Your task to perform on an android device: open app "Google Play Games" Image 0: 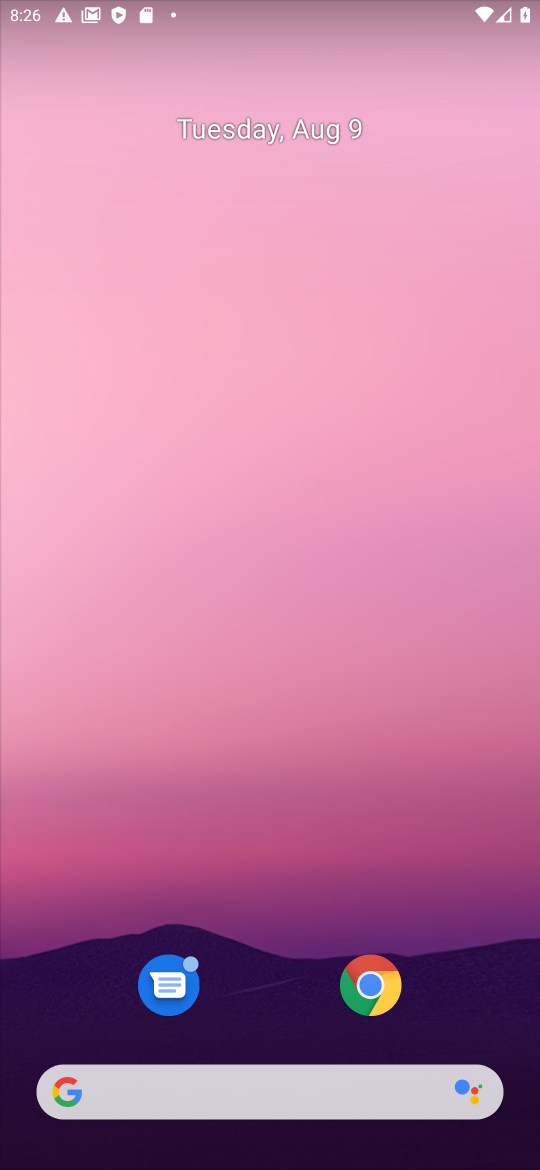
Step 0: drag from (233, 996) to (252, 405)
Your task to perform on an android device: open app "Google Play Games" Image 1: 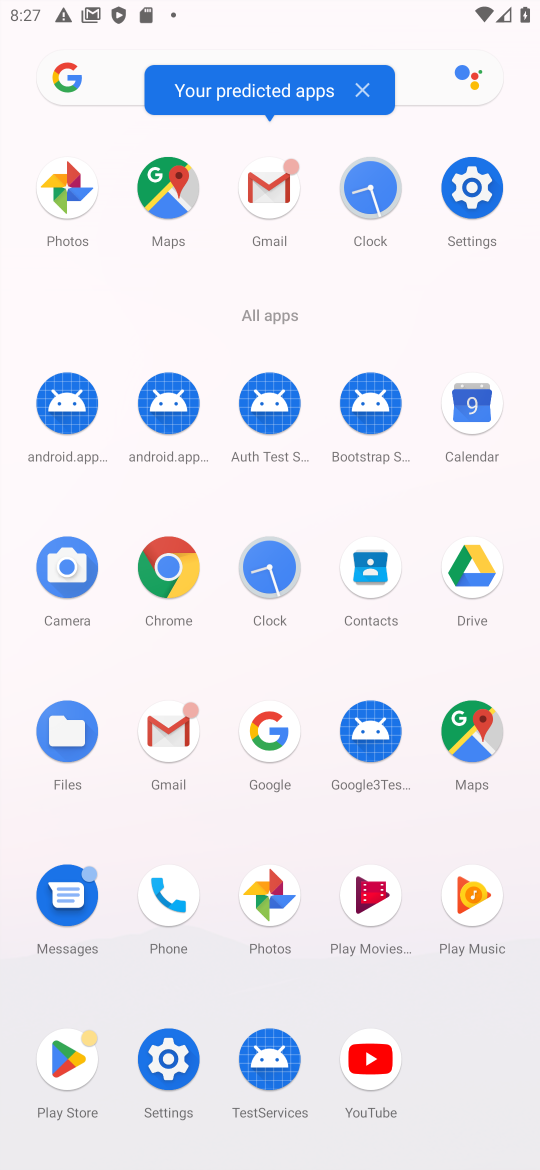
Step 1: click (54, 1098)
Your task to perform on an android device: open app "Google Play Games" Image 2: 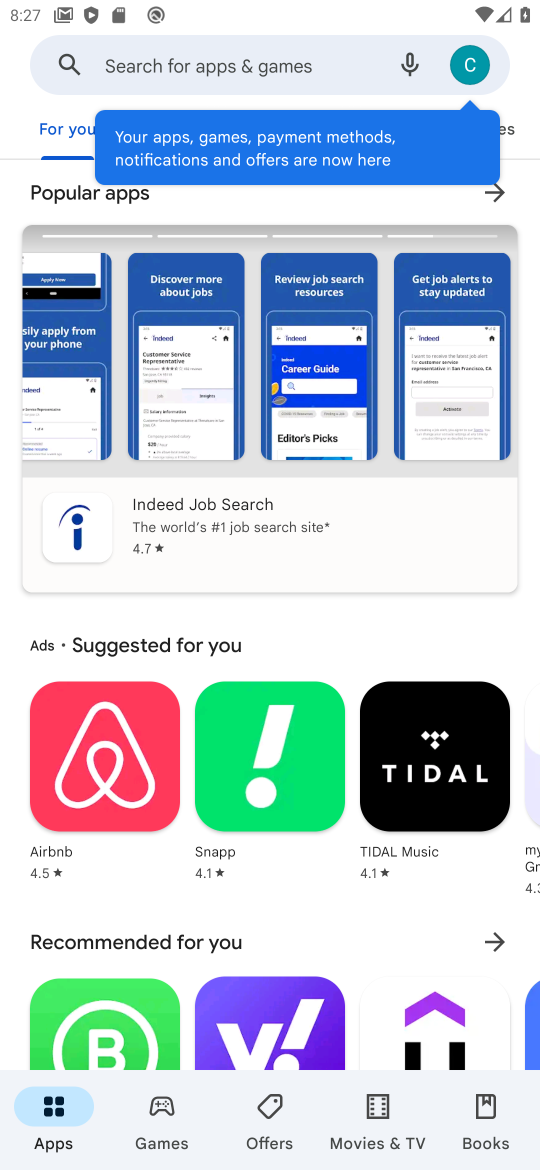
Step 2: click (205, 61)
Your task to perform on an android device: open app "Google Play Games" Image 3: 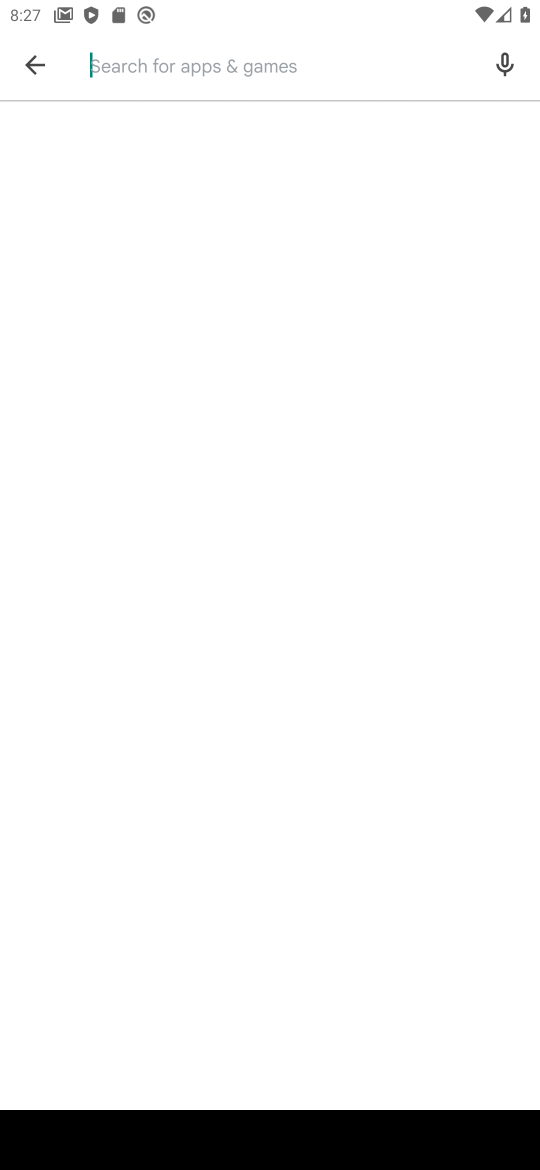
Step 3: type "google play games"
Your task to perform on an android device: open app "Google Play Games" Image 4: 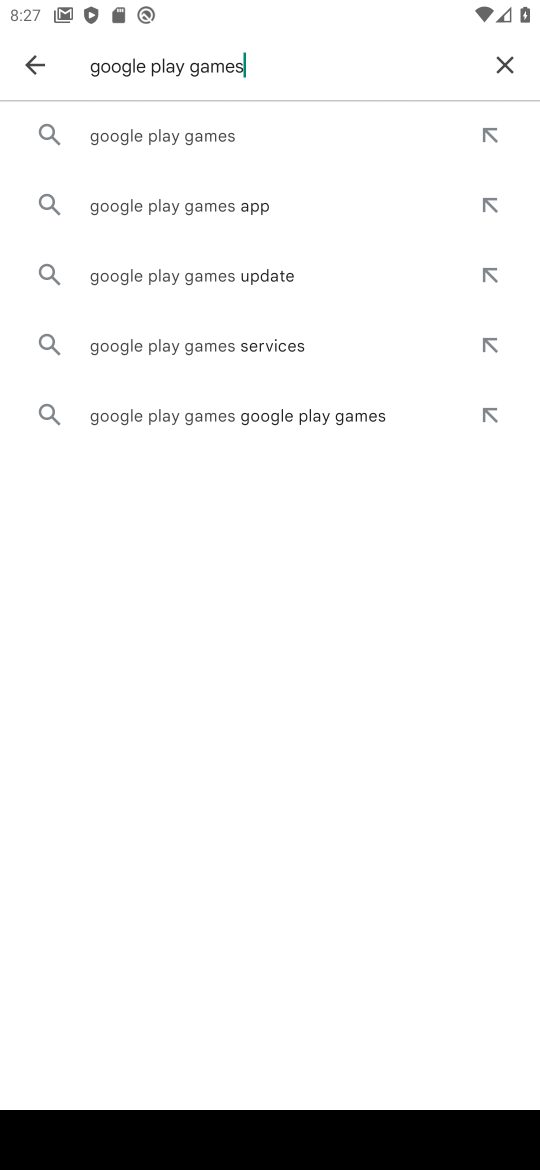
Step 4: click (268, 76)
Your task to perform on an android device: open app "Google Play Games" Image 5: 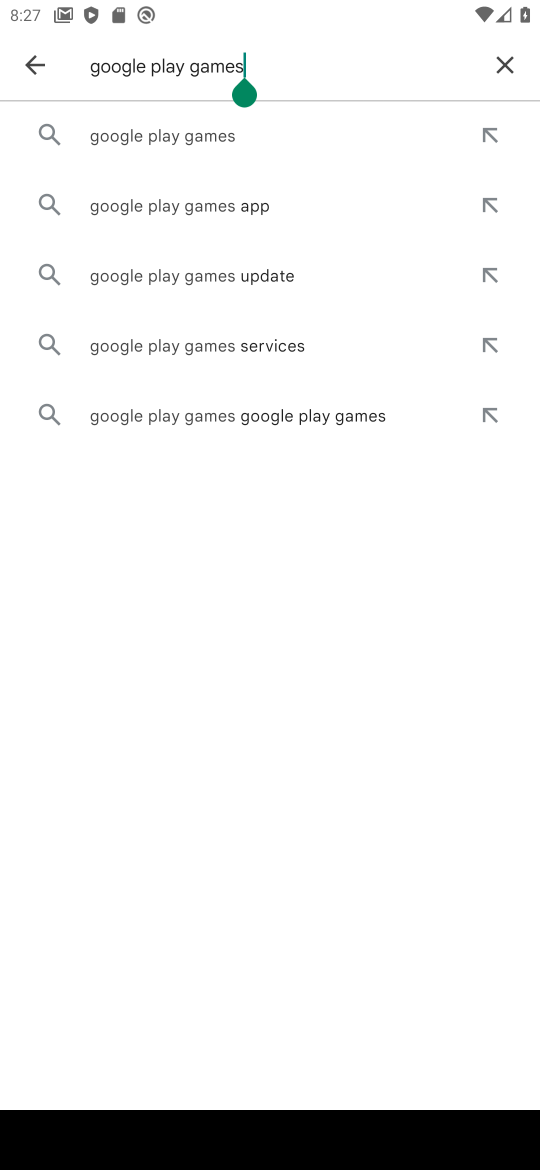
Step 5: click (211, 135)
Your task to perform on an android device: open app "Google Play Games" Image 6: 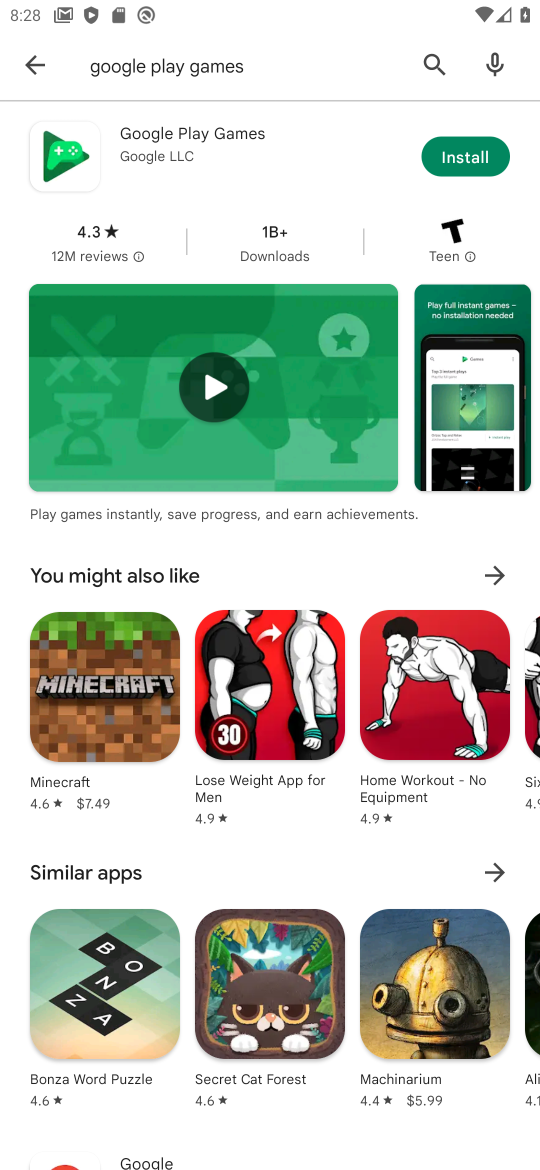
Step 6: task complete